Your task to perform on an android device: turn off picture-in-picture Image 0: 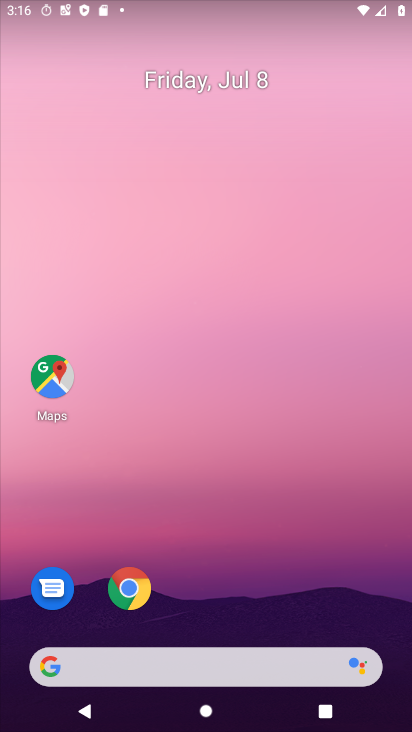
Step 0: click (137, 590)
Your task to perform on an android device: turn off picture-in-picture Image 1: 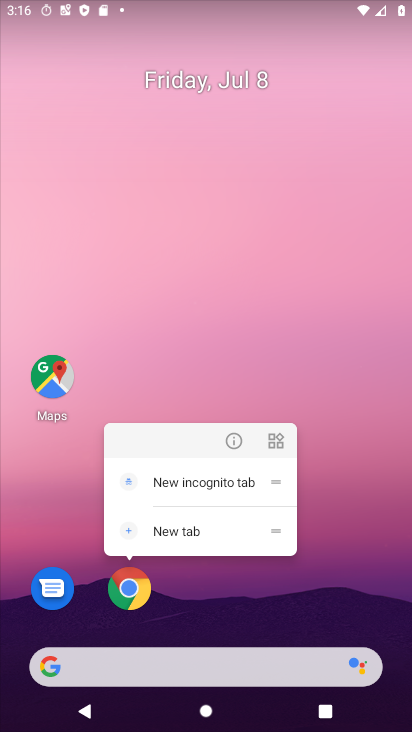
Step 1: click (231, 439)
Your task to perform on an android device: turn off picture-in-picture Image 2: 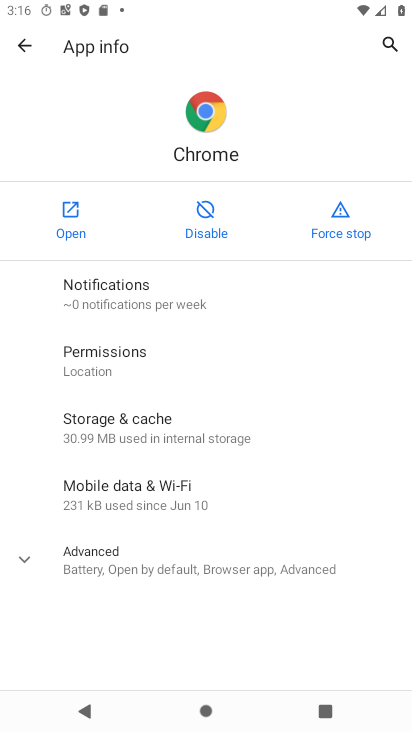
Step 2: click (101, 558)
Your task to perform on an android device: turn off picture-in-picture Image 3: 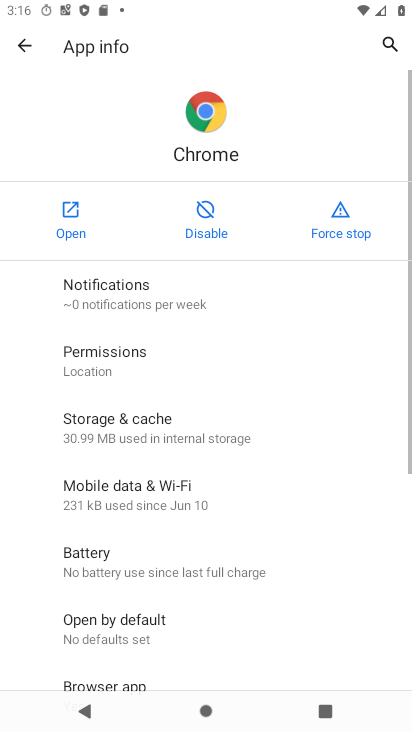
Step 3: drag from (294, 570) to (298, 507)
Your task to perform on an android device: turn off picture-in-picture Image 4: 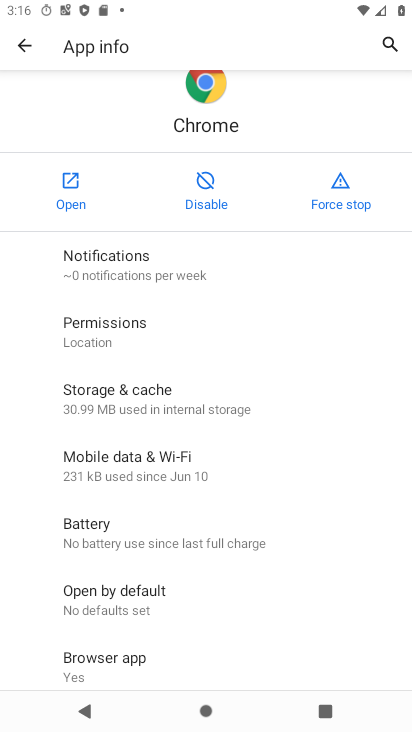
Step 4: drag from (297, 588) to (303, 246)
Your task to perform on an android device: turn off picture-in-picture Image 5: 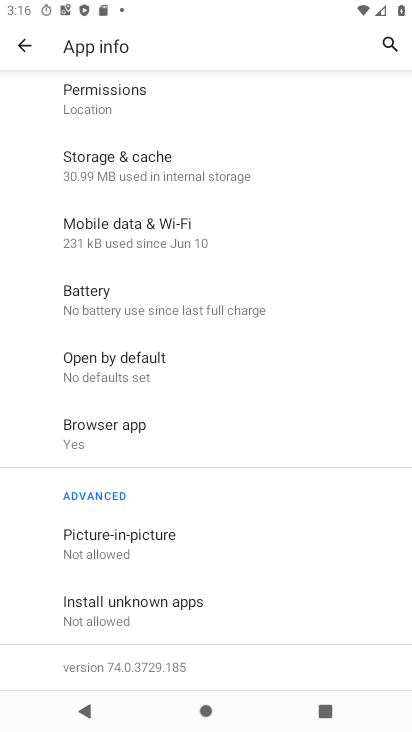
Step 5: click (133, 543)
Your task to perform on an android device: turn off picture-in-picture Image 6: 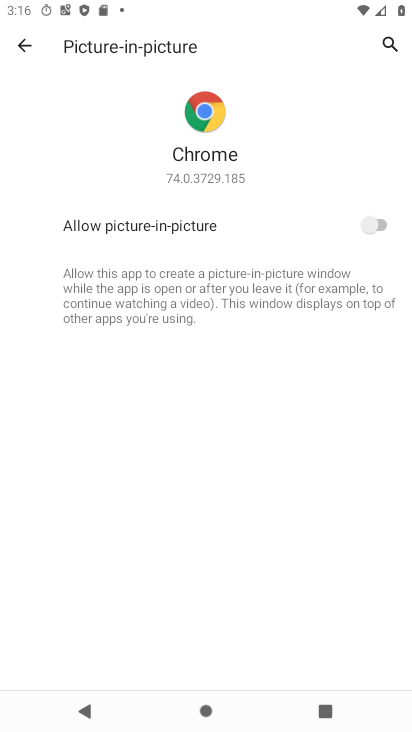
Step 6: task complete